Your task to perform on an android device: turn on sleep mode Image 0: 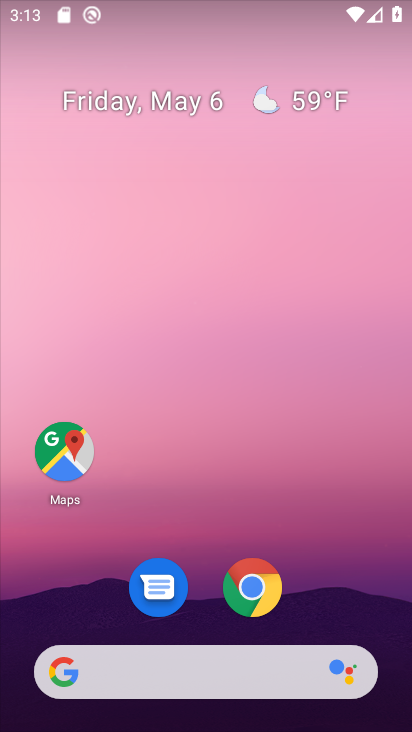
Step 0: drag from (338, 494) to (205, 40)
Your task to perform on an android device: turn on sleep mode Image 1: 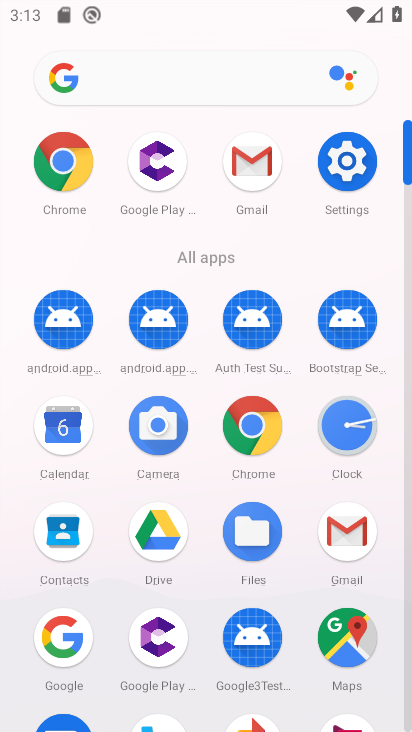
Step 1: click (346, 159)
Your task to perform on an android device: turn on sleep mode Image 2: 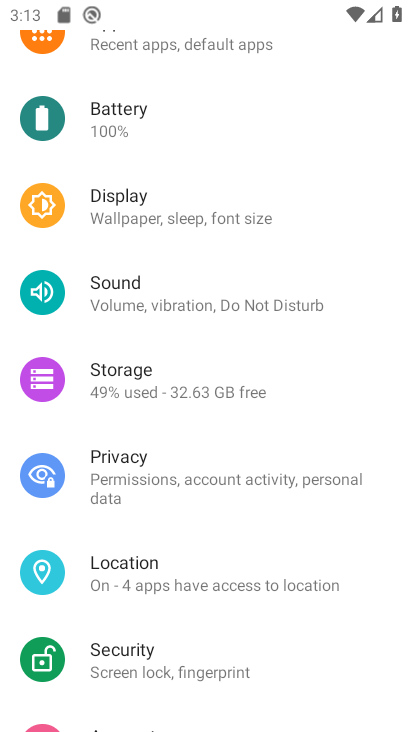
Step 2: click (192, 198)
Your task to perform on an android device: turn on sleep mode Image 3: 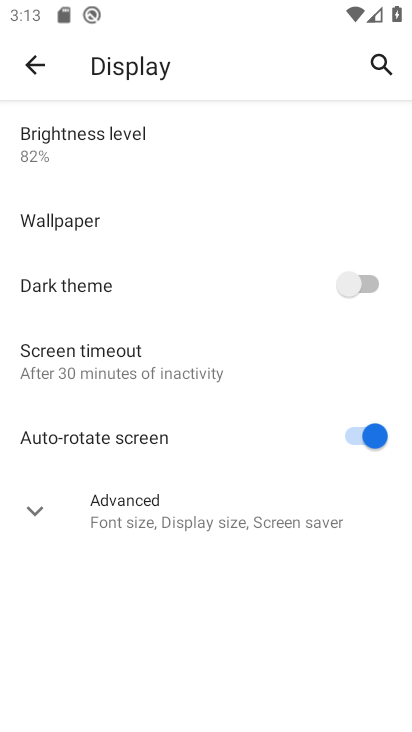
Step 3: click (35, 513)
Your task to perform on an android device: turn on sleep mode Image 4: 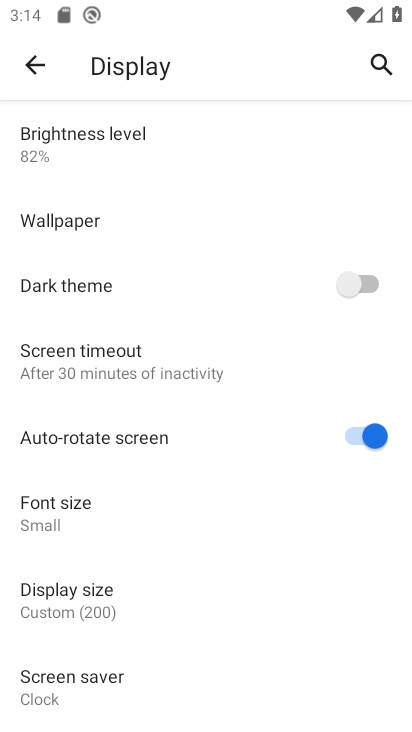
Step 4: task complete